Your task to perform on an android device: change keyboard looks Image 0: 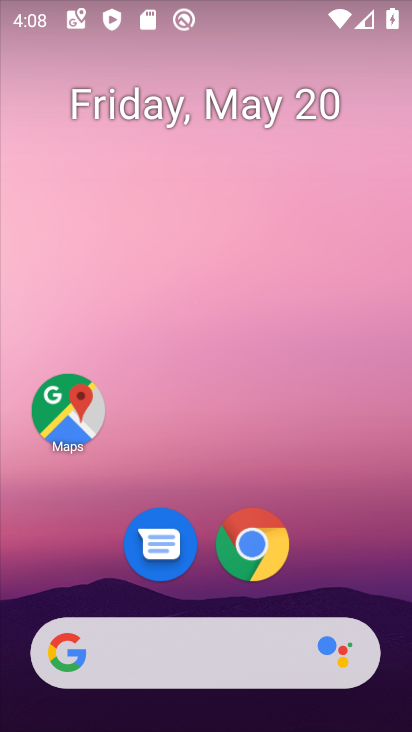
Step 0: drag from (325, 571) to (345, 15)
Your task to perform on an android device: change keyboard looks Image 1: 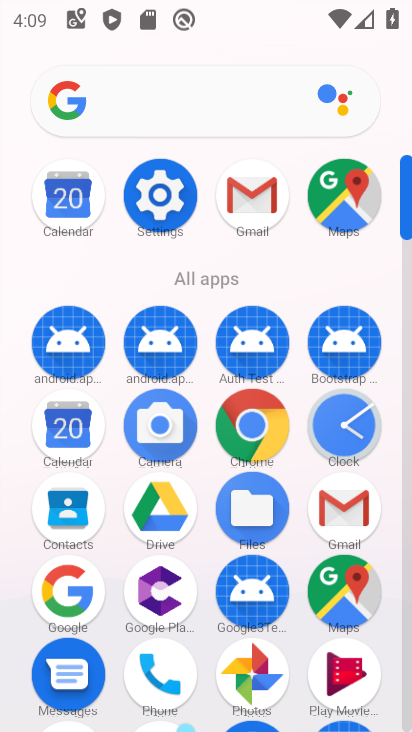
Step 1: click (162, 202)
Your task to perform on an android device: change keyboard looks Image 2: 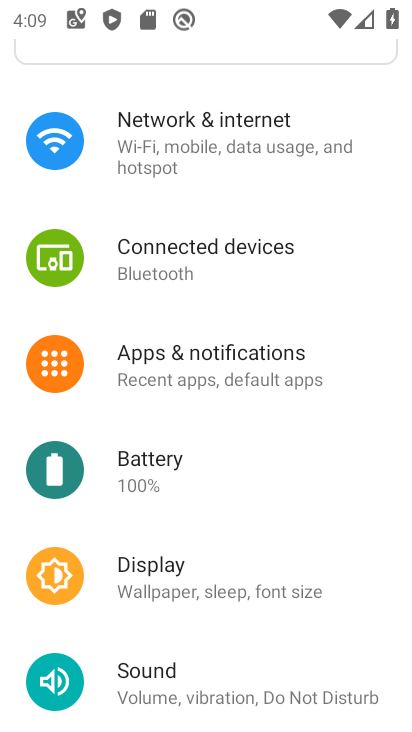
Step 2: drag from (352, 614) to (344, 72)
Your task to perform on an android device: change keyboard looks Image 3: 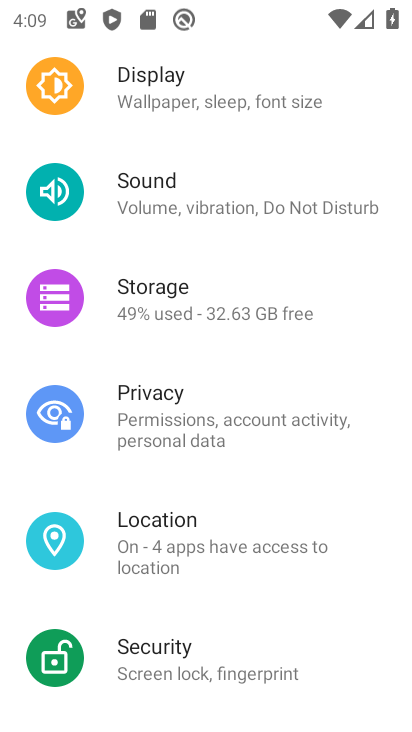
Step 3: drag from (350, 590) to (338, 145)
Your task to perform on an android device: change keyboard looks Image 4: 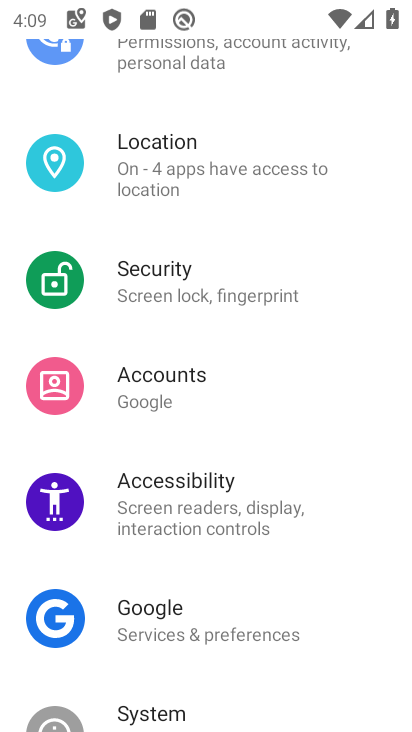
Step 4: drag from (339, 626) to (329, 241)
Your task to perform on an android device: change keyboard looks Image 5: 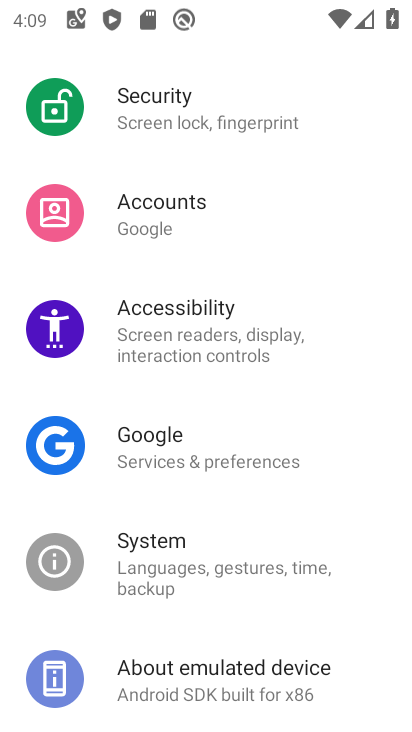
Step 5: click (154, 560)
Your task to perform on an android device: change keyboard looks Image 6: 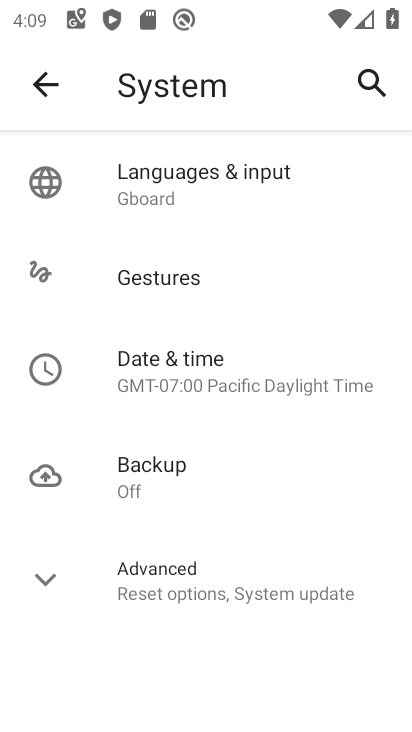
Step 6: click (154, 192)
Your task to perform on an android device: change keyboard looks Image 7: 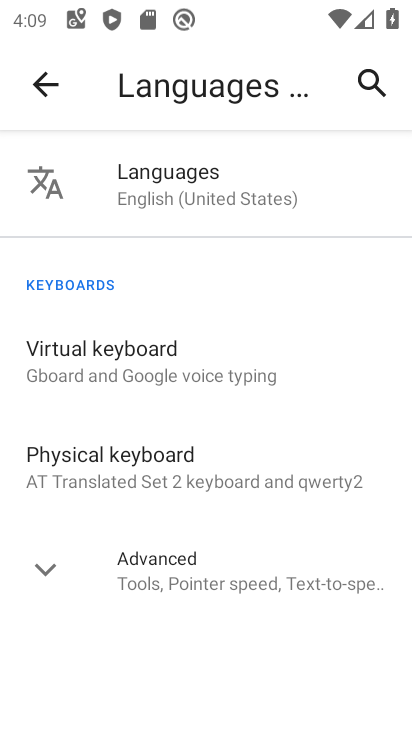
Step 7: click (87, 360)
Your task to perform on an android device: change keyboard looks Image 8: 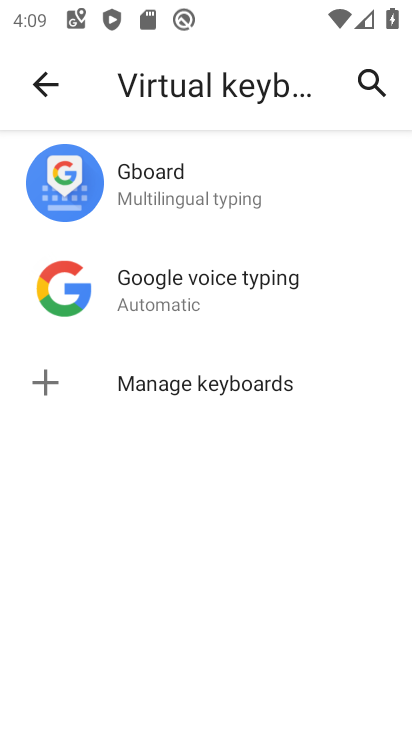
Step 8: click (144, 180)
Your task to perform on an android device: change keyboard looks Image 9: 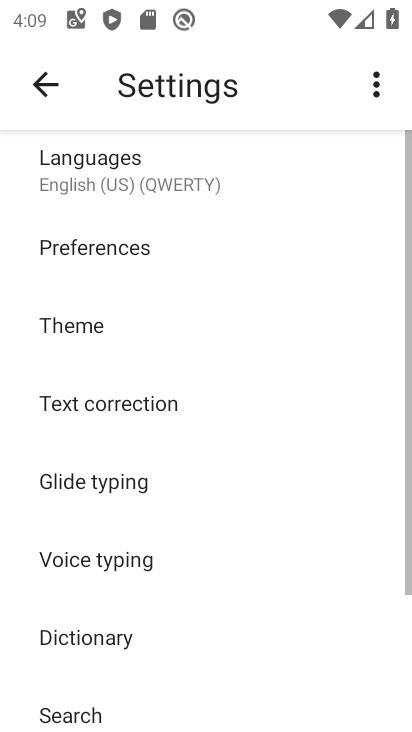
Step 9: click (83, 328)
Your task to perform on an android device: change keyboard looks Image 10: 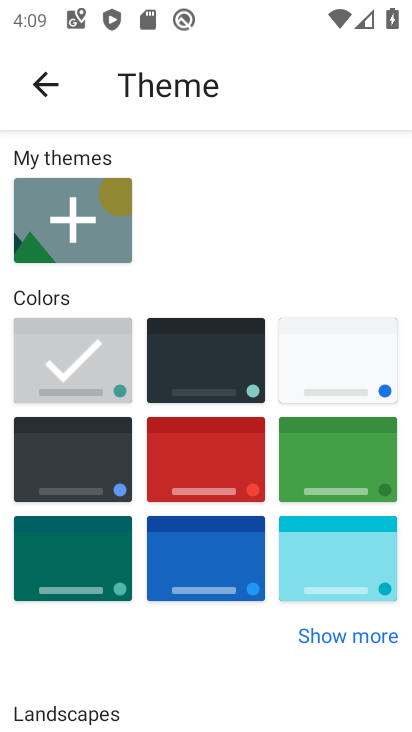
Step 10: click (96, 560)
Your task to perform on an android device: change keyboard looks Image 11: 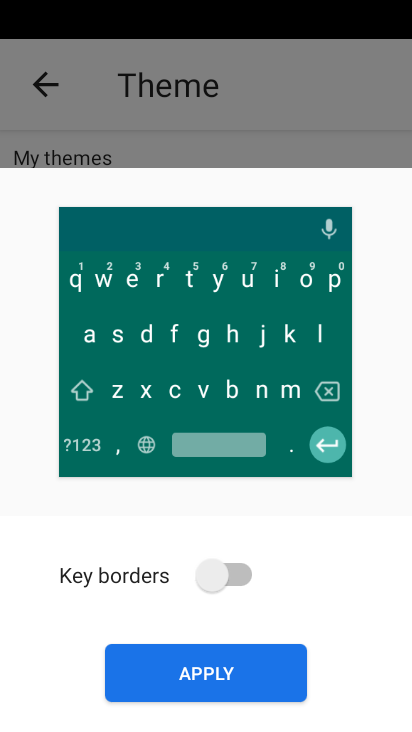
Step 11: click (207, 581)
Your task to perform on an android device: change keyboard looks Image 12: 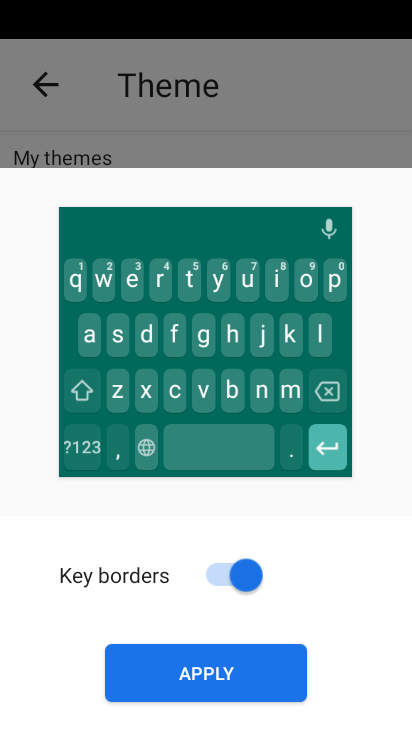
Step 12: click (207, 667)
Your task to perform on an android device: change keyboard looks Image 13: 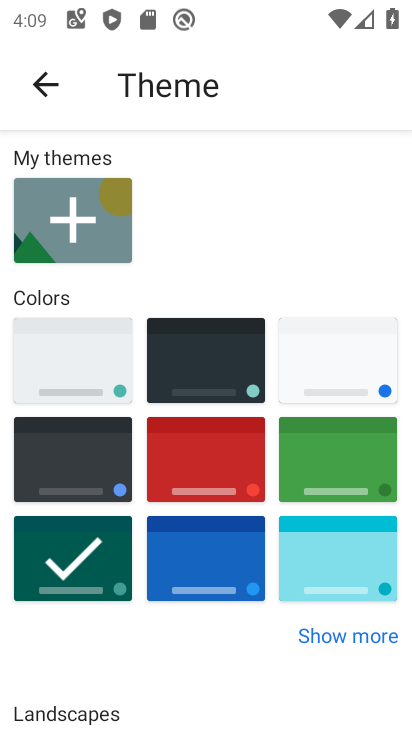
Step 13: task complete